Your task to perform on an android device: turn off data saver in the chrome app Image 0: 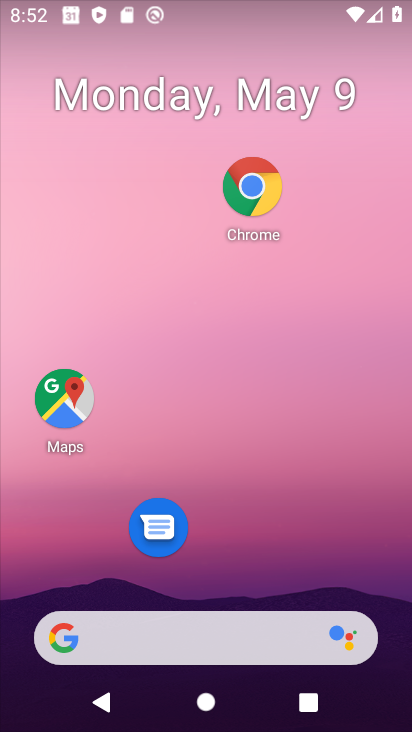
Step 0: click (254, 184)
Your task to perform on an android device: turn off data saver in the chrome app Image 1: 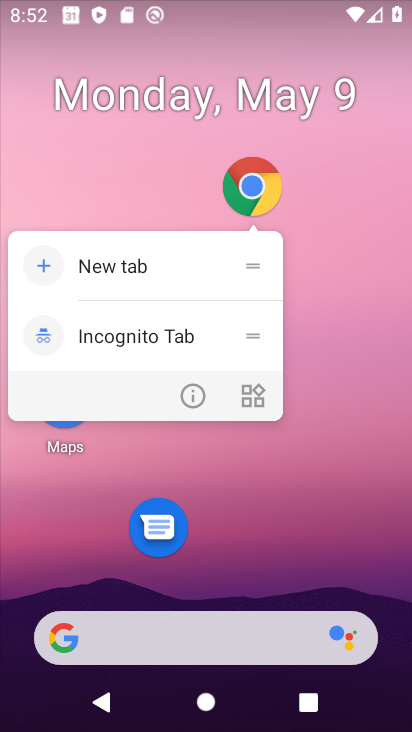
Step 1: click (339, 264)
Your task to perform on an android device: turn off data saver in the chrome app Image 2: 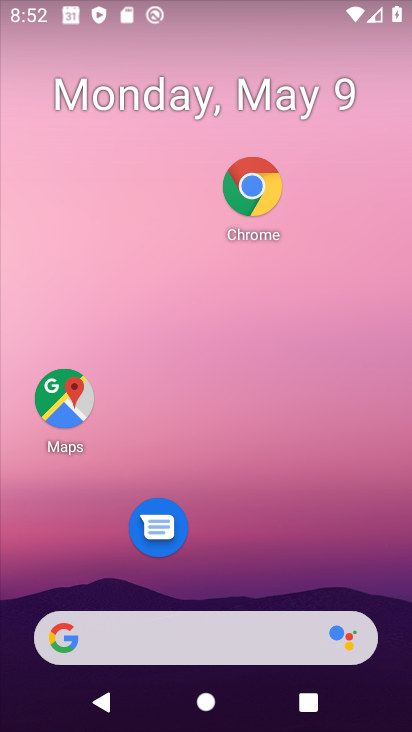
Step 2: click (252, 180)
Your task to perform on an android device: turn off data saver in the chrome app Image 3: 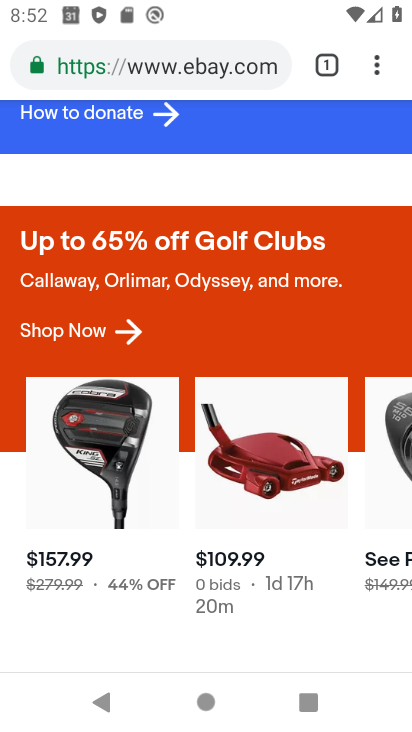
Step 3: click (378, 63)
Your task to perform on an android device: turn off data saver in the chrome app Image 4: 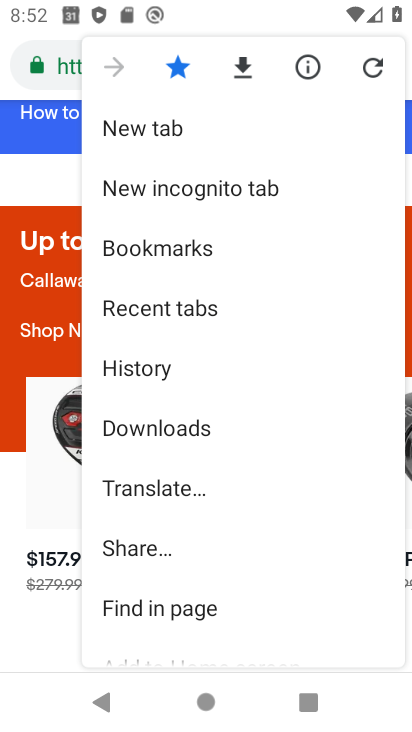
Step 4: drag from (217, 583) to (269, 143)
Your task to perform on an android device: turn off data saver in the chrome app Image 5: 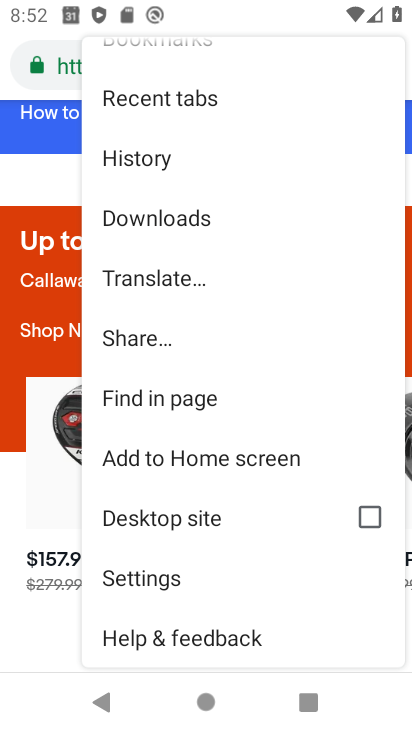
Step 5: click (185, 584)
Your task to perform on an android device: turn off data saver in the chrome app Image 6: 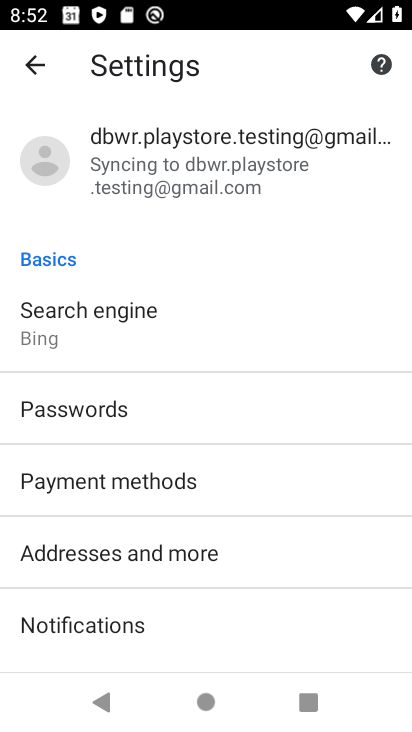
Step 6: drag from (228, 594) to (295, 305)
Your task to perform on an android device: turn off data saver in the chrome app Image 7: 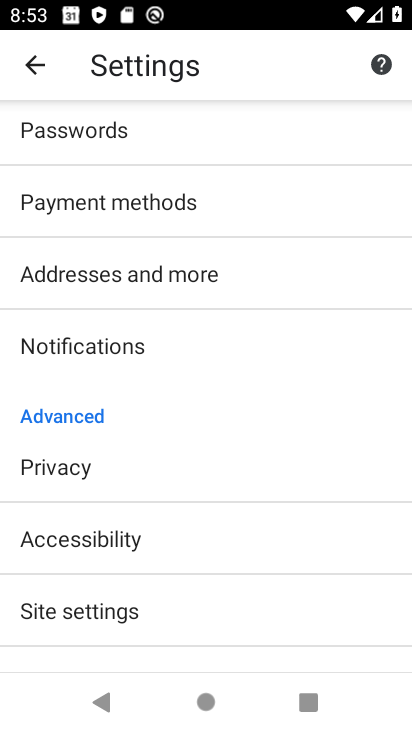
Step 7: drag from (179, 610) to (218, 138)
Your task to perform on an android device: turn off data saver in the chrome app Image 8: 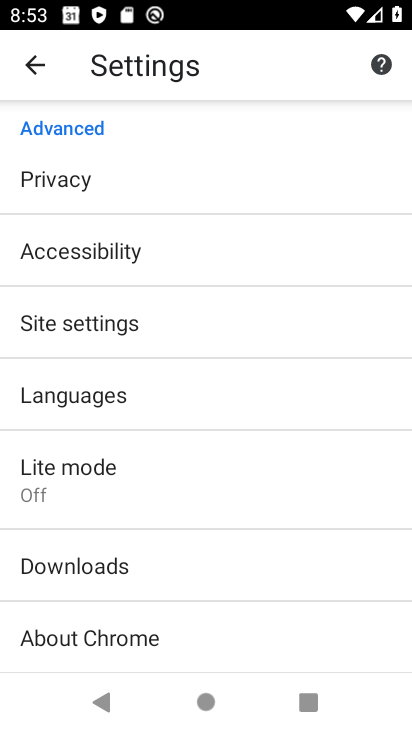
Step 8: click (90, 490)
Your task to perform on an android device: turn off data saver in the chrome app Image 9: 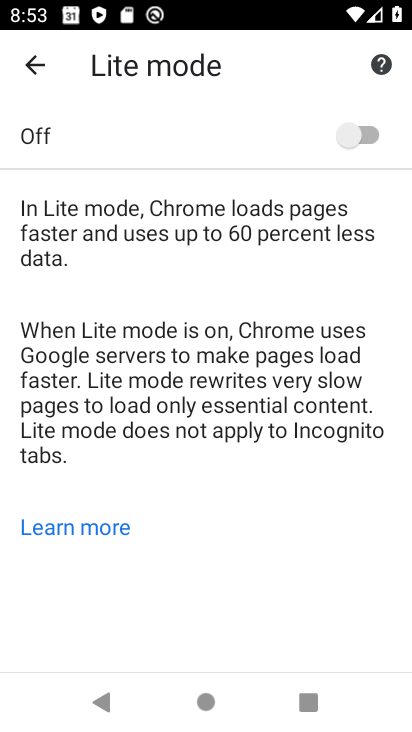
Step 9: task complete